Your task to perform on an android device: change notification settings in the gmail app Image 0: 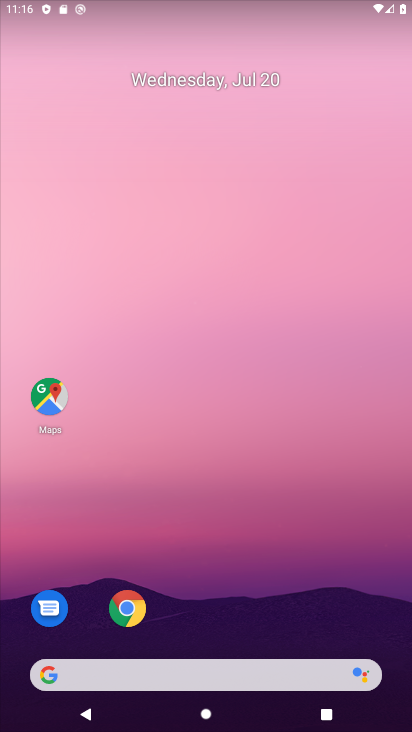
Step 0: drag from (364, 584) to (125, 77)
Your task to perform on an android device: change notification settings in the gmail app Image 1: 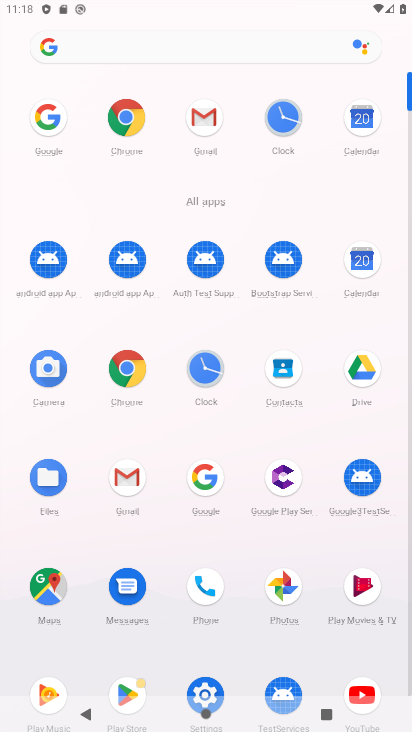
Step 1: click (118, 490)
Your task to perform on an android device: change notification settings in the gmail app Image 2: 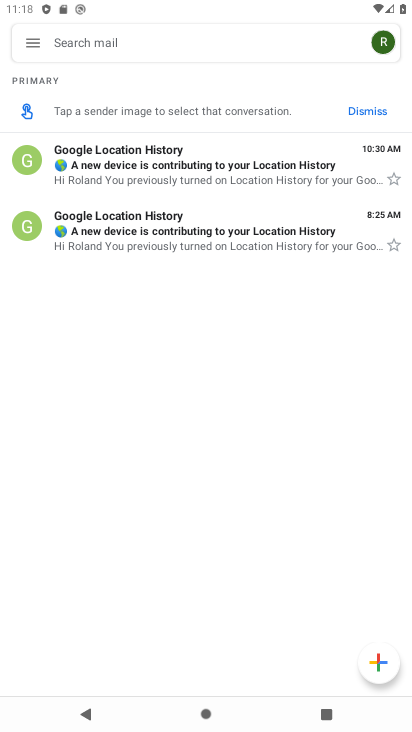
Step 2: click (24, 37)
Your task to perform on an android device: change notification settings in the gmail app Image 3: 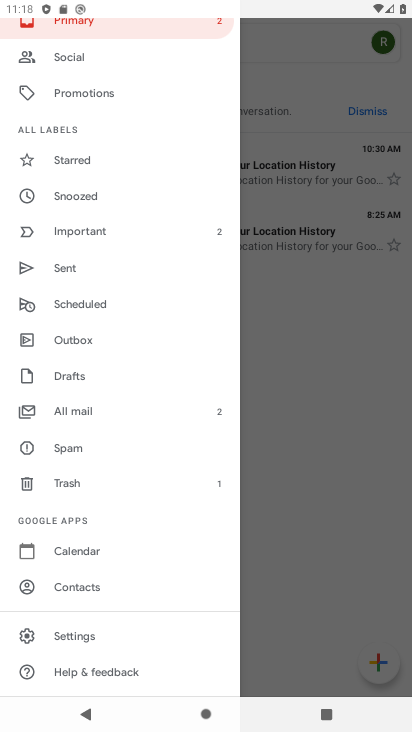
Step 3: click (85, 638)
Your task to perform on an android device: change notification settings in the gmail app Image 4: 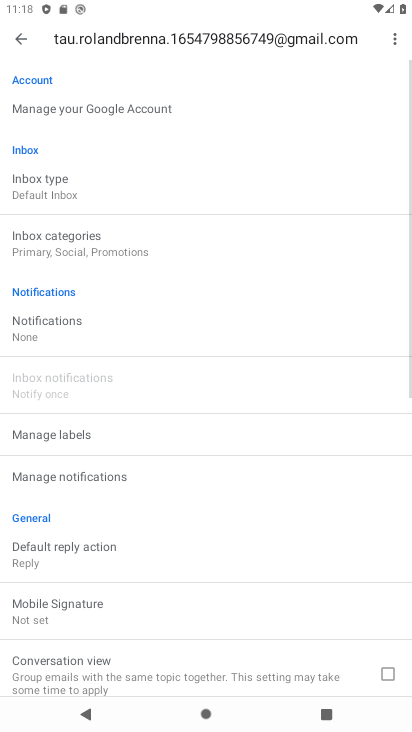
Step 4: click (91, 325)
Your task to perform on an android device: change notification settings in the gmail app Image 5: 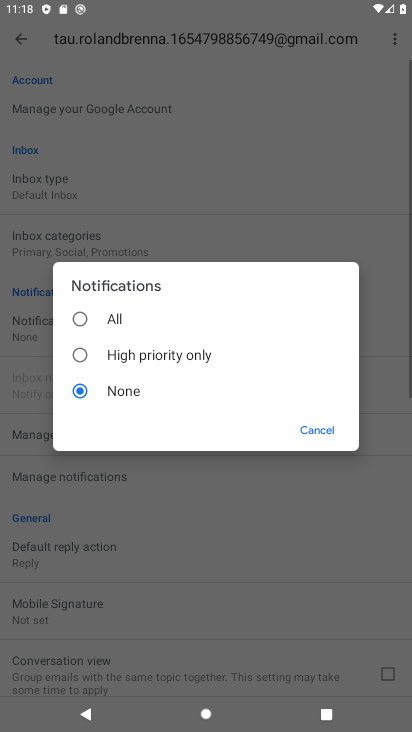
Step 5: click (91, 320)
Your task to perform on an android device: change notification settings in the gmail app Image 6: 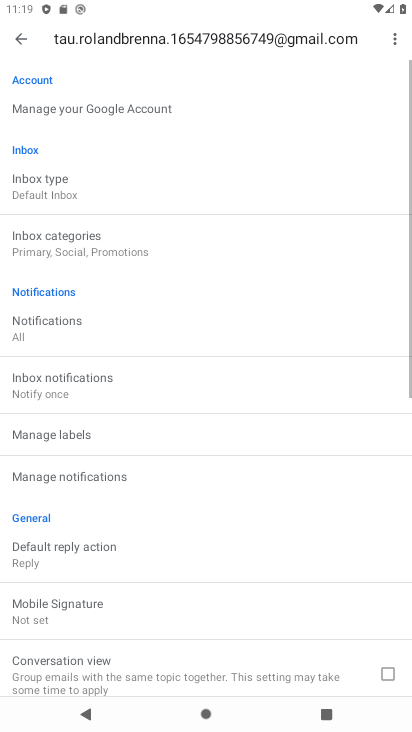
Step 6: task complete